Your task to perform on an android device: Open Maps and search for coffee Image 0: 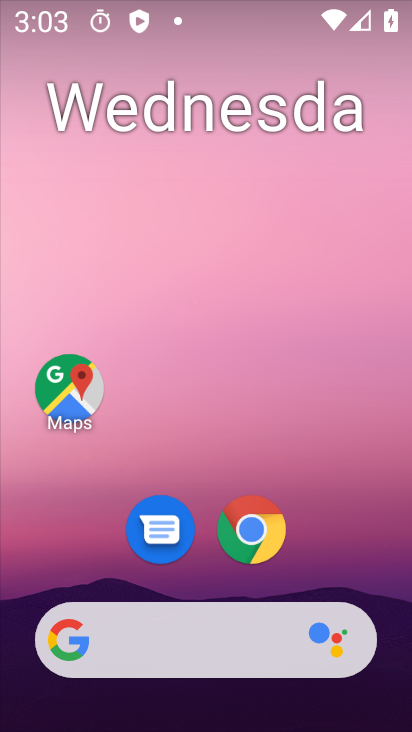
Step 0: drag from (336, 545) to (329, 61)
Your task to perform on an android device: Open Maps and search for coffee Image 1: 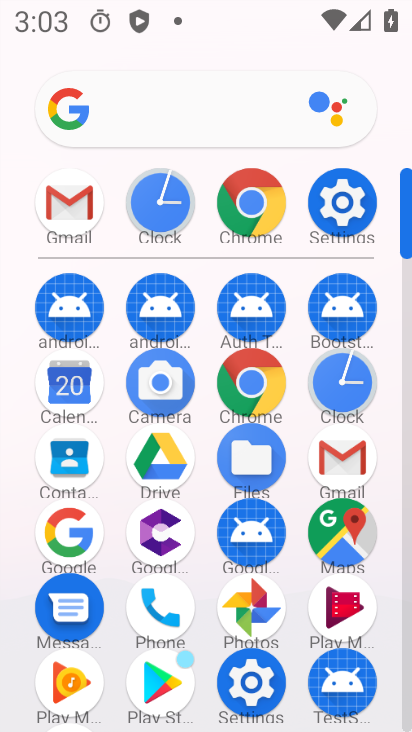
Step 1: click (337, 525)
Your task to perform on an android device: Open Maps and search for coffee Image 2: 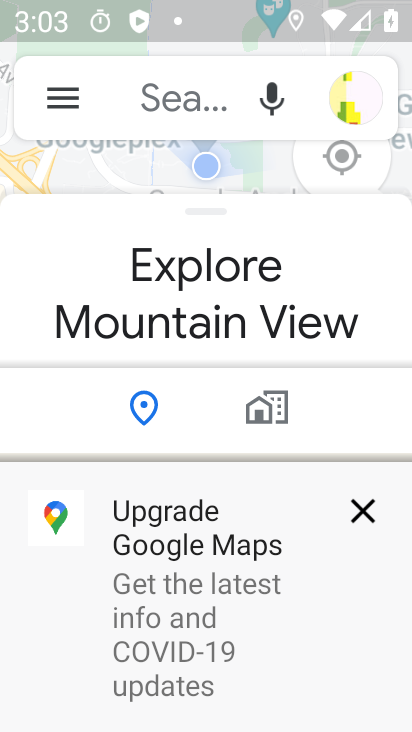
Step 2: click (173, 107)
Your task to perform on an android device: Open Maps and search for coffee Image 3: 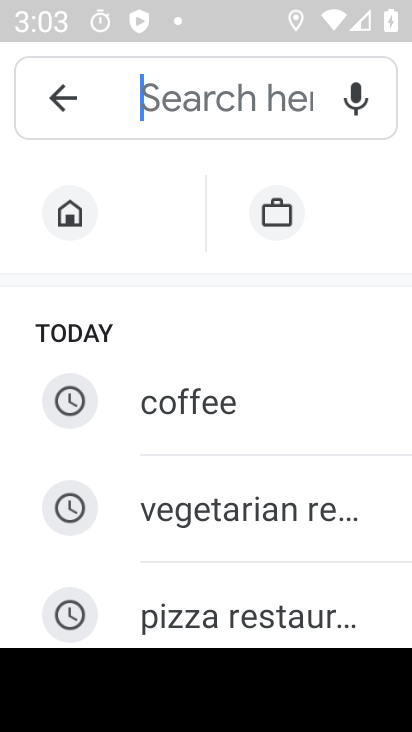
Step 3: type "coffee"
Your task to perform on an android device: Open Maps and search for coffee Image 4: 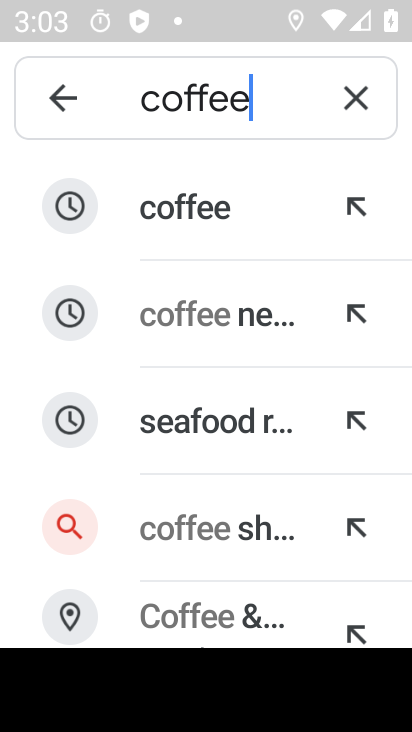
Step 4: click (145, 205)
Your task to perform on an android device: Open Maps and search for coffee Image 5: 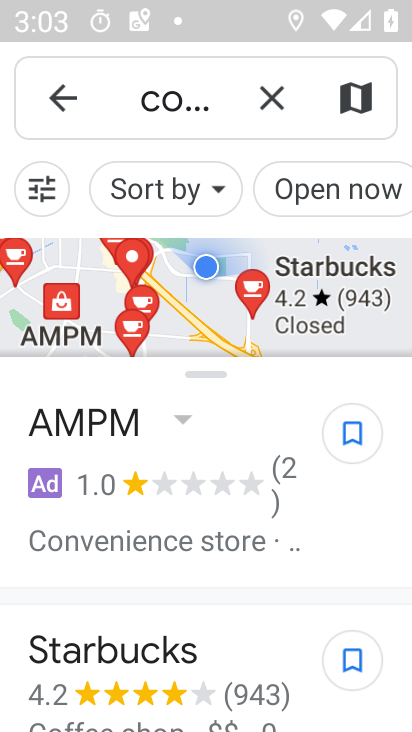
Step 5: task complete